Your task to perform on an android device: uninstall "Facebook Messenger" Image 0: 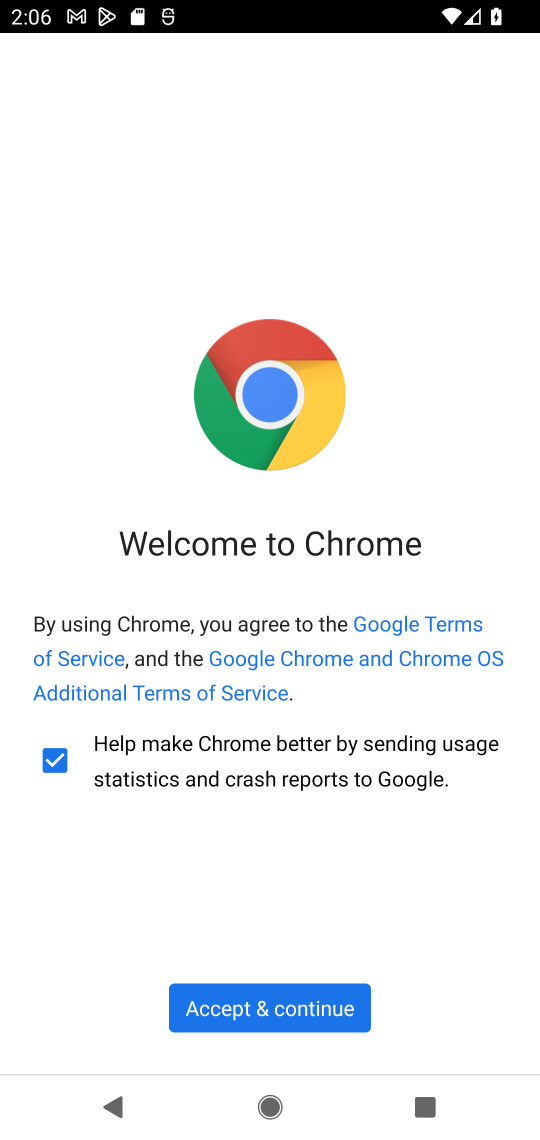
Step 0: click (177, 997)
Your task to perform on an android device: uninstall "Facebook Messenger" Image 1: 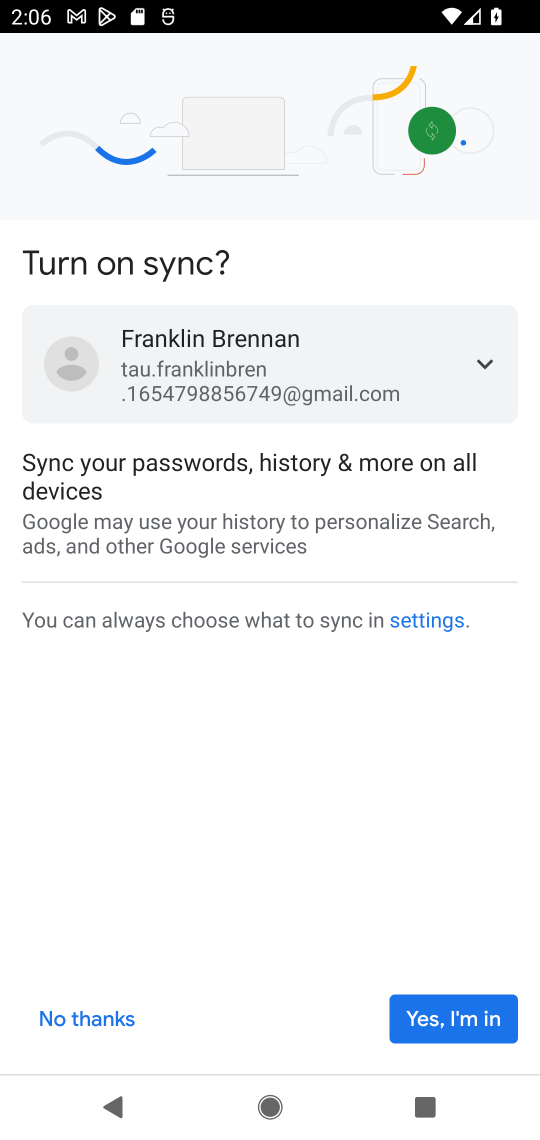
Step 1: click (392, 1005)
Your task to perform on an android device: uninstall "Facebook Messenger" Image 2: 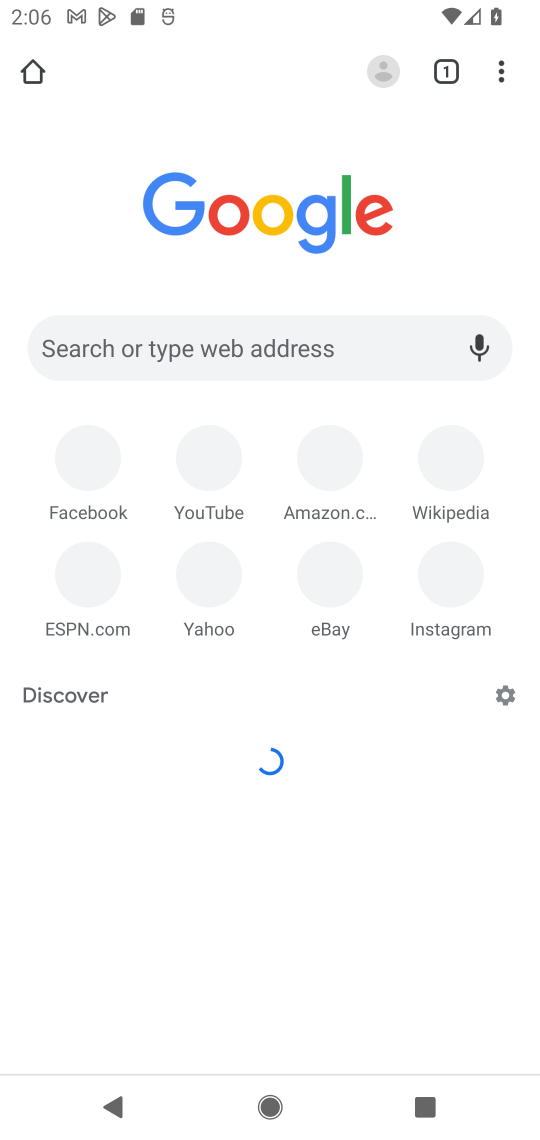
Step 2: click (487, 1014)
Your task to perform on an android device: uninstall "Facebook Messenger" Image 3: 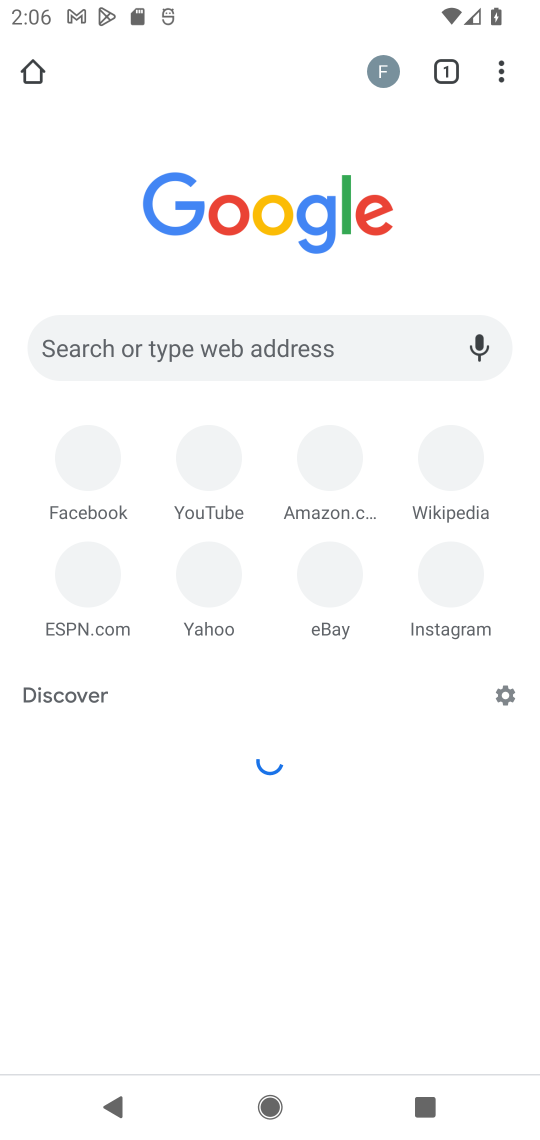
Step 3: press home button
Your task to perform on an android device: uninstall "Facebook Messenger" Image 4: 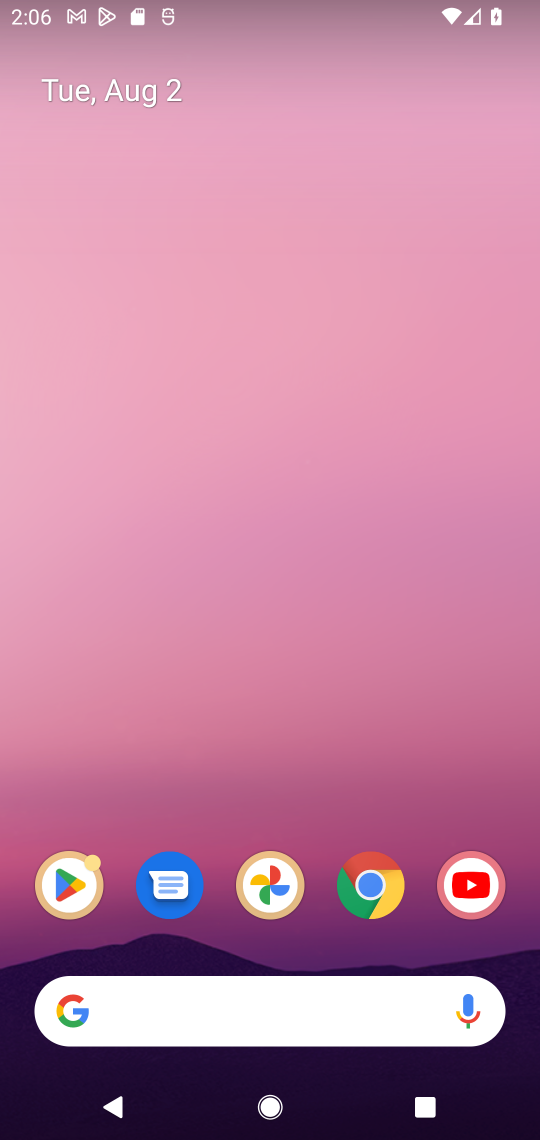
Step 4: drag from (212, 932) to (216, 171)
Your task to perform on an android device: uninstall "Facebook Messenger" Image 5: 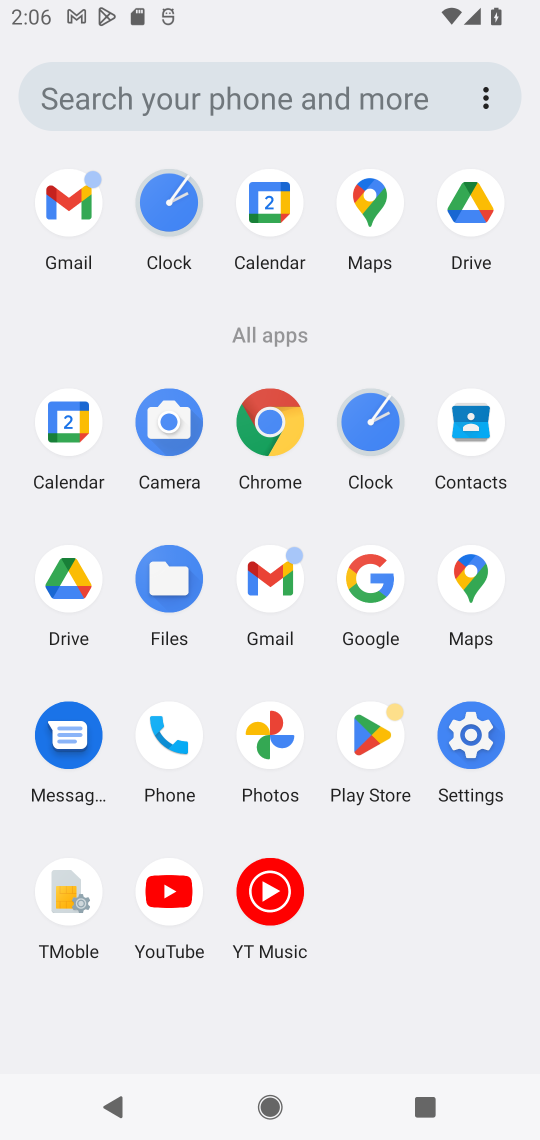
Step 5: click (375, 756)
Your task to perform on an android device: uninstall "Facebook Messenger" Image 6: 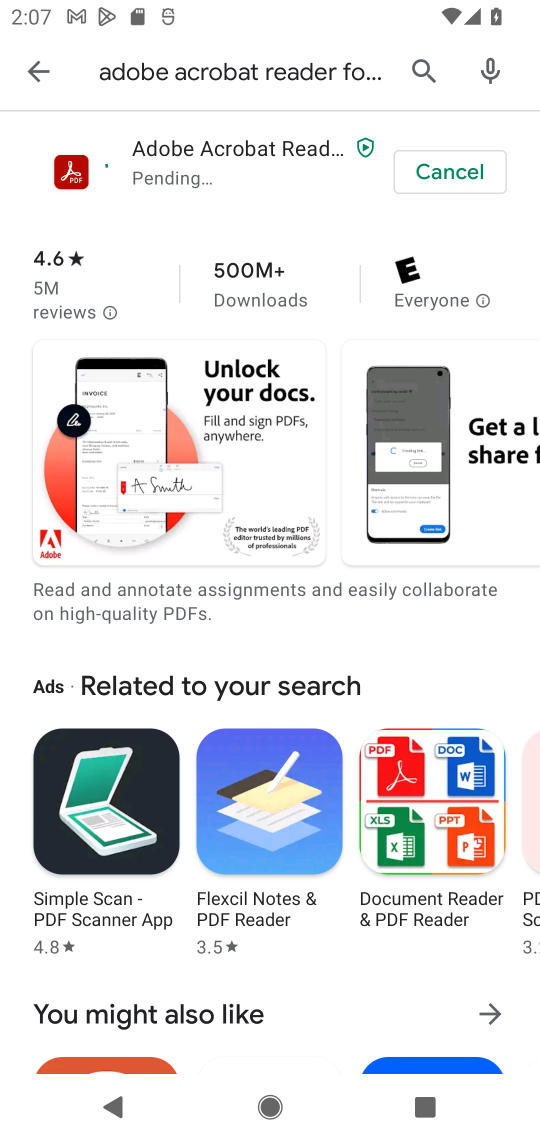
Step 6: click (414, 162)
Your task to perform on an android device: uninstall "Facebook Messenger" Image 7: 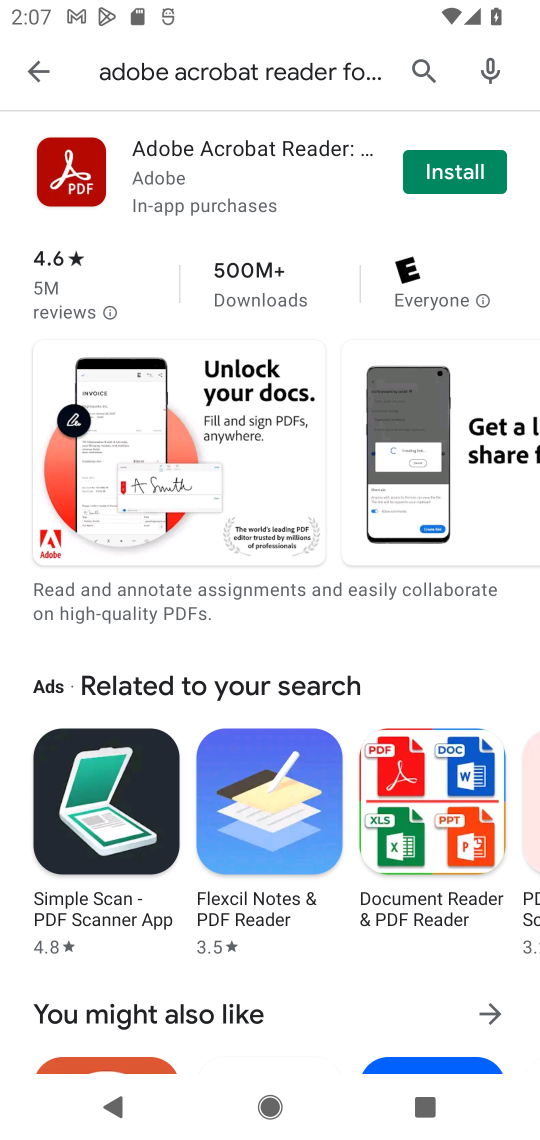
Step 7: click (414, 162)
Your task to perform on an android device: uninstall "Facebook Messenger" Image 8: 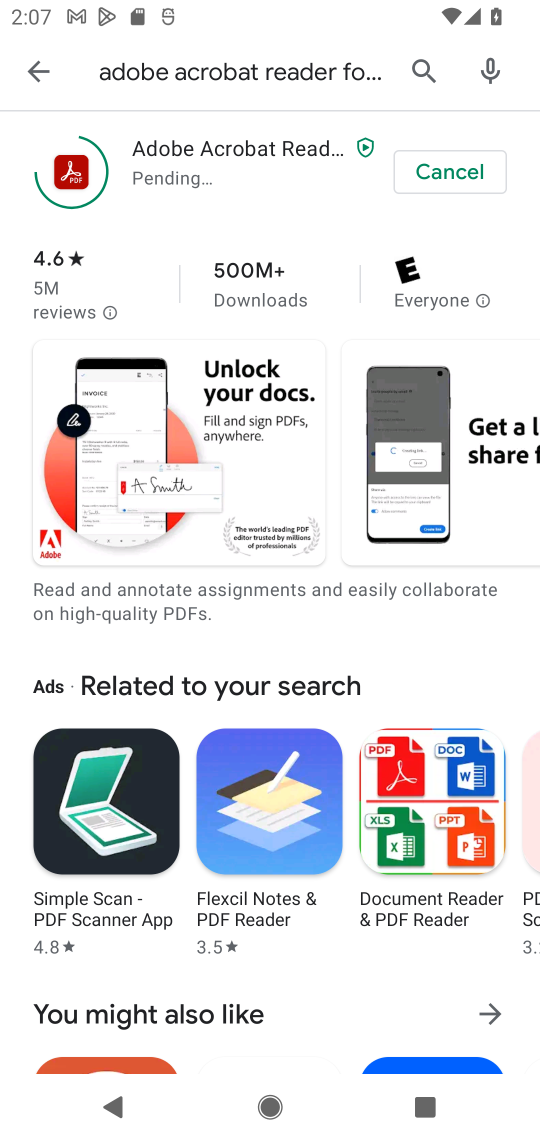
Step 8: task complete